Your task to perform on an android device: turn on translation in the chrome app Image 0: 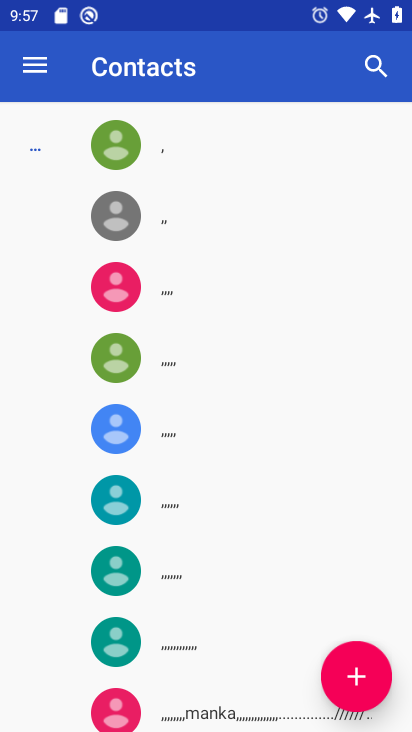
Step 0: press home button
Your task to perform on an android device: turn on translation in the chrome app Image 1: 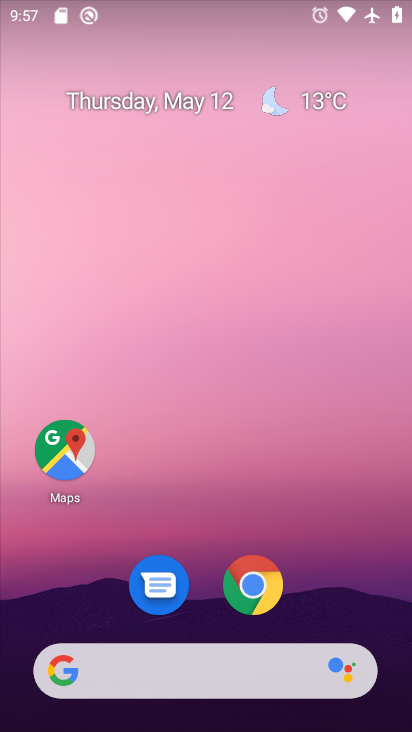
Step 1: click (262, 565)
Your task to perform on an android device: turn on translation in the chrome app Image 2: 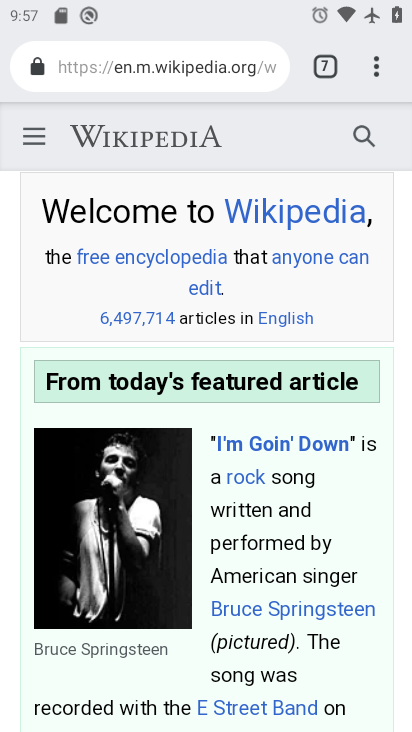
Step 2: click (371, 67)
Your task to perform on an android device: turn on translation in the chrome app Image 3: 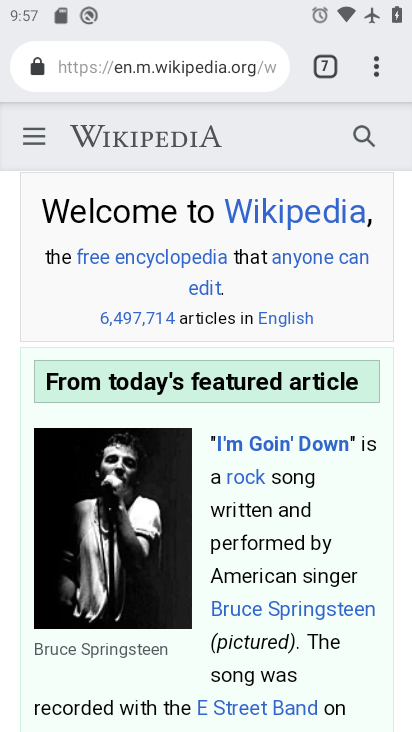
Step 3: click (371, 69)
Your task to perform on an android device: turn on translation in the chrome app Image 4: 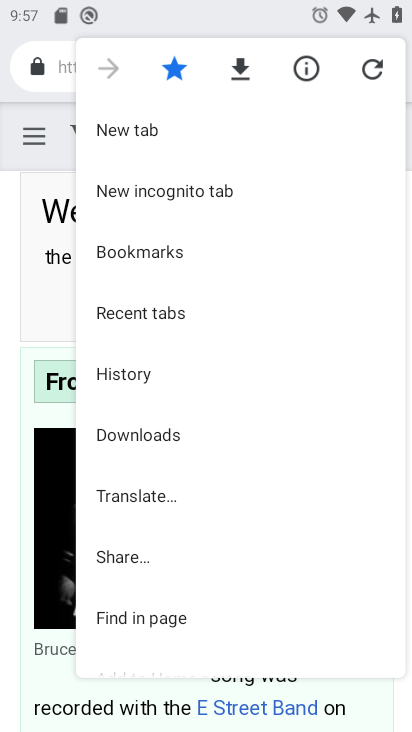
Step 4: drag from (244, 550) to (214, 258)
Your task to perform on an android device: turn on translation in the chrome app Image 5: 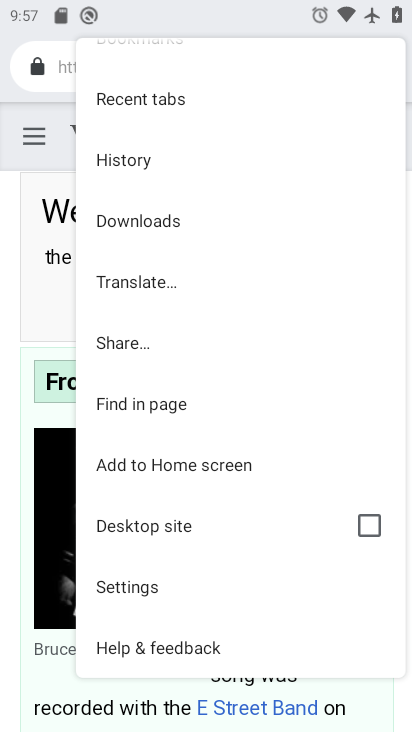
Step 5: click (179, 582)
Your task to perform on an android device: turn on translation in the chrome app Image 6: 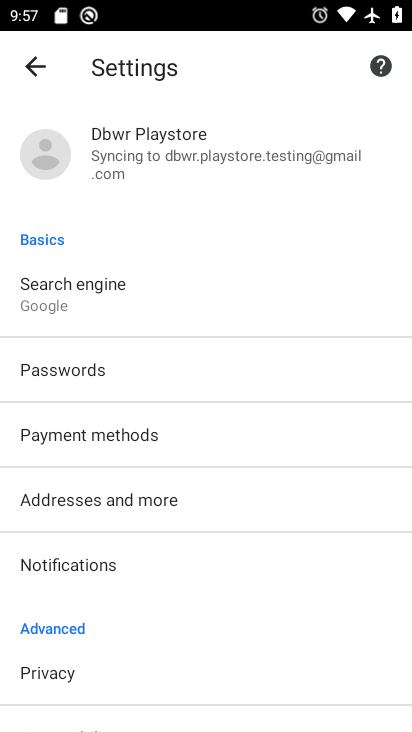
Step 6: drag from (249, 552) to (223, 237)
Your task to perform on an android device: turn on translation in the chrome app Image 7: 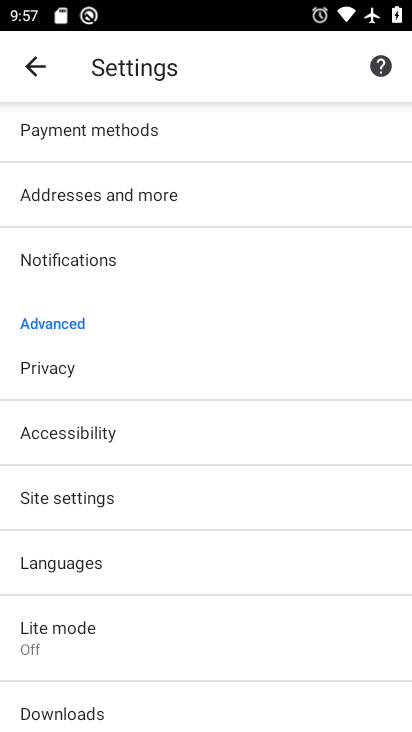
Step 7: click (226, 550)
Your task to perform on an android device: turn on translation in the chrome app Image 8: 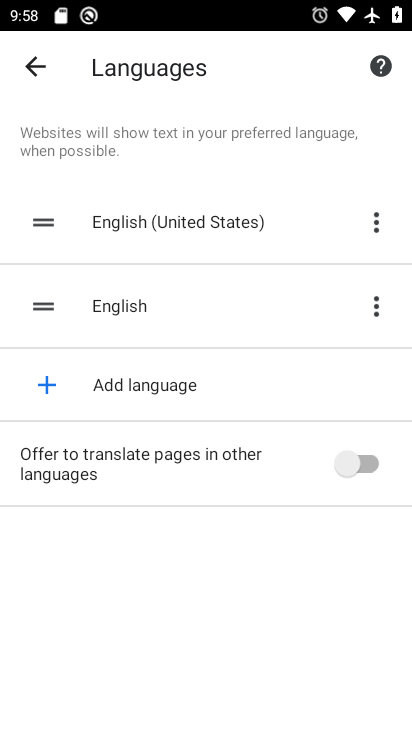
Step 8: click (362, 450)
Your task to perform on an android device: turn on translation in the chrome app Image 9: 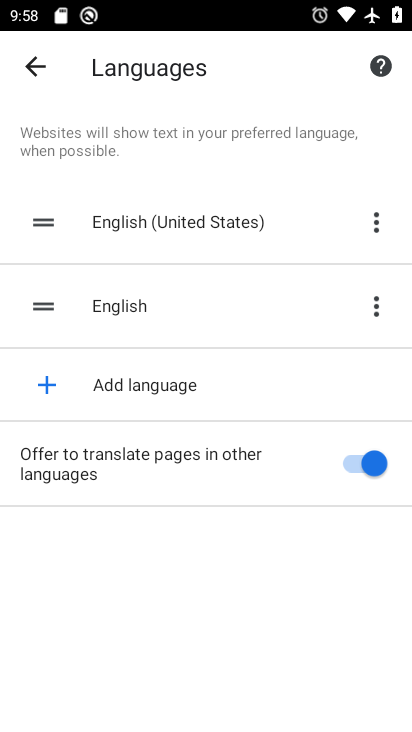
Step 9: task complete